Your task to perform on an android device: Go to privacy settings Image 0: 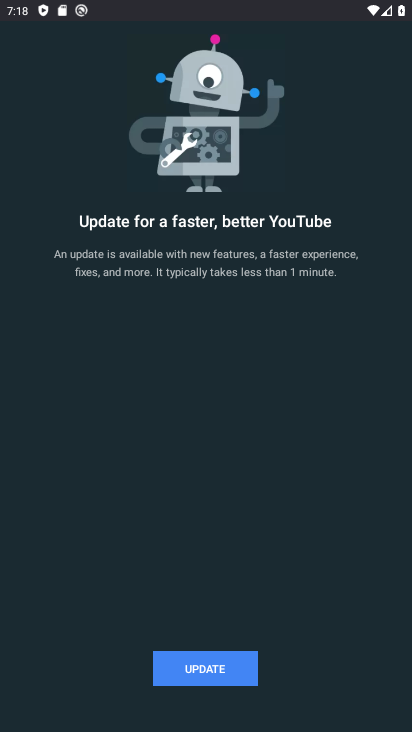
Step 0: press home button
Your task to perform on an android device: Go to privacy settings Image 1: 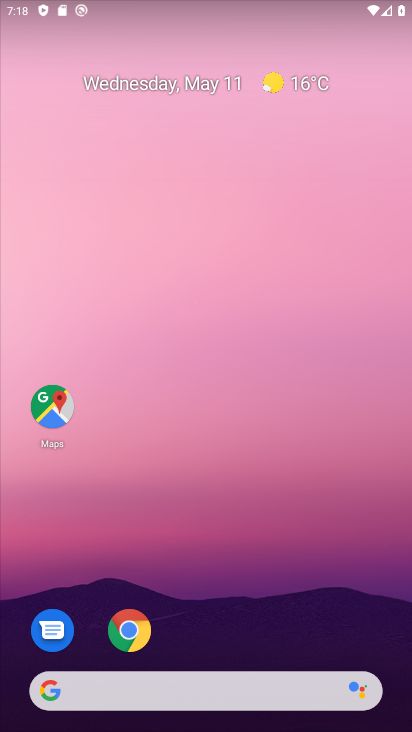
Step 1: drag from (354, 578) to (362, 7)
Your task to perform on an android device: Go to privacy settings Image 2: 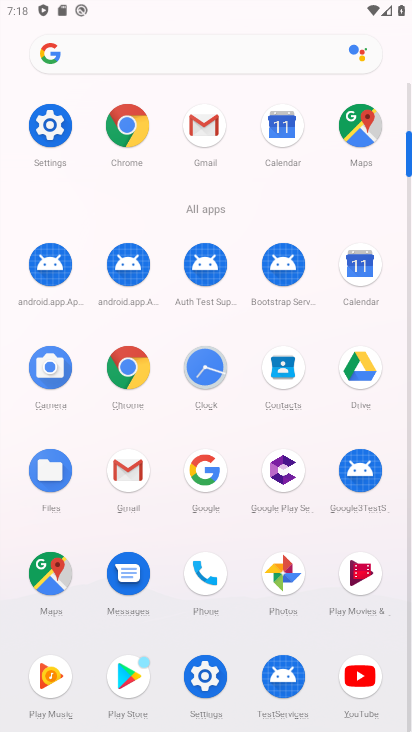
Step 2: click (48, 136)
Your task to perform on an android device: Go to privacy settings Image 3: 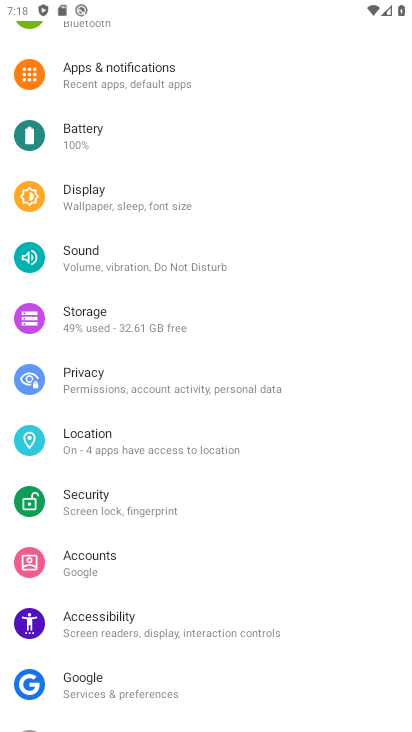
Step 3: drag from (167, 629) to (216, 496)
Your task to perform on an android device: Go to privacy settings Image 4: 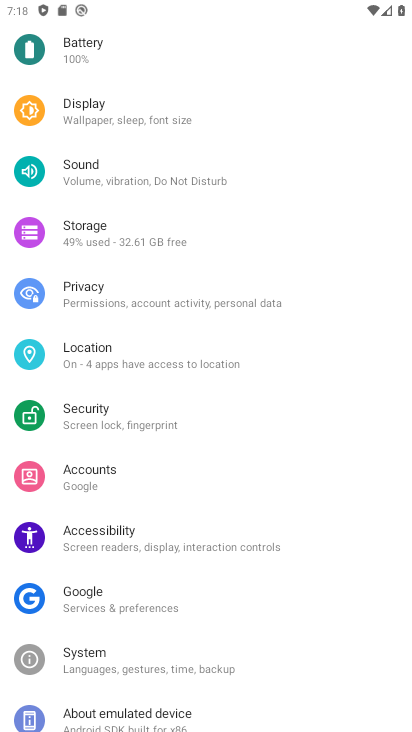
Step 4: click (87, 301)
Your task to perform on an android device: Go to privacy settings Image 5: 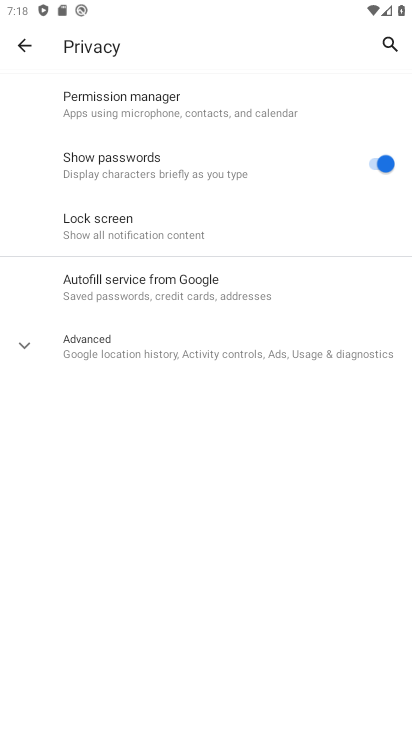
Step 5: task complete